Your task to perform on an android device: Go to display settings Image 0: 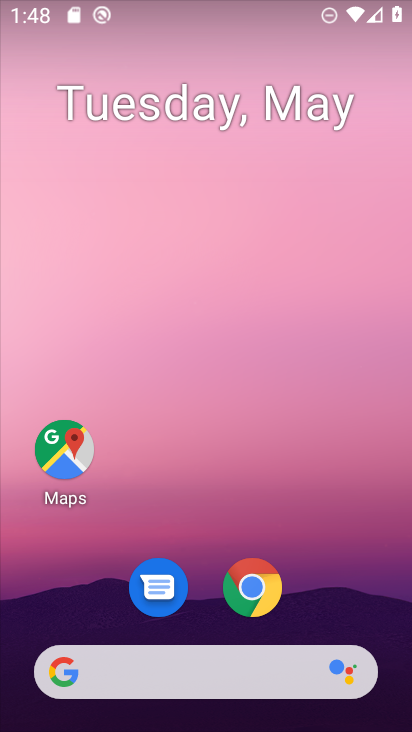
Step 0: drag from (193, 615) to (228, 92)
Your task to perform on an android device: Go to display settings Image 1: 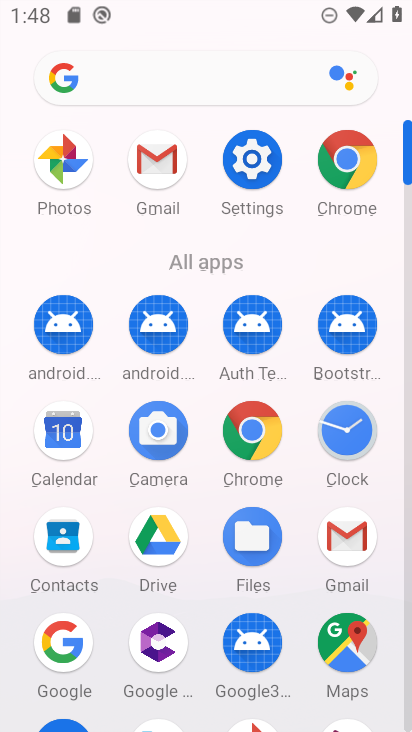
Step 1: click (263, 179)
Your task to perform on an android device: Go to display settings Image 2: 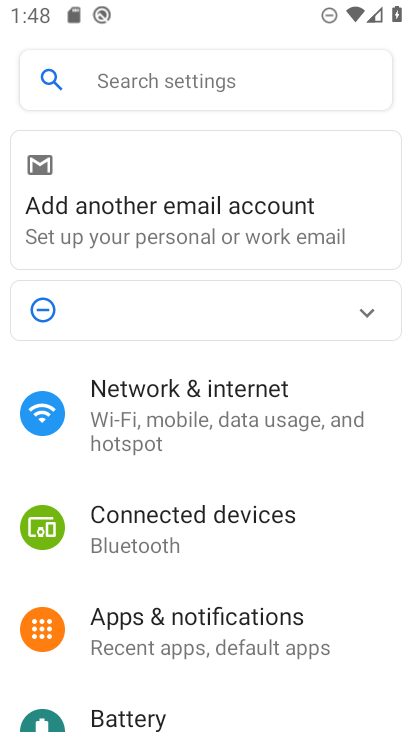
Step 2: drag from (132, 620) to (353, 42)
Your task to perform on an android device: Go to display settings Image 3: 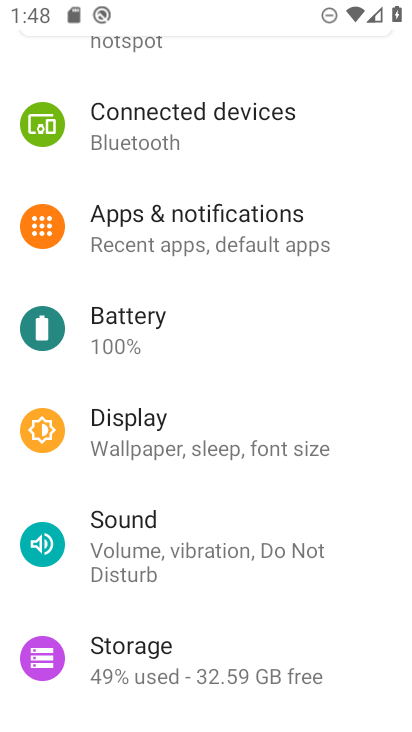
Step 3: click (141, 407)
Your task to perform on an android device: Go to display settings Image 4: 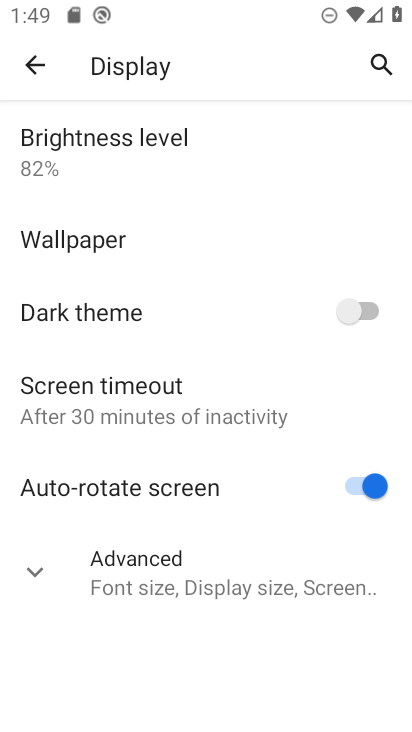
Step 4: task complete